Your task to perform on an android device: Open Maps and search for coffee Image 0: 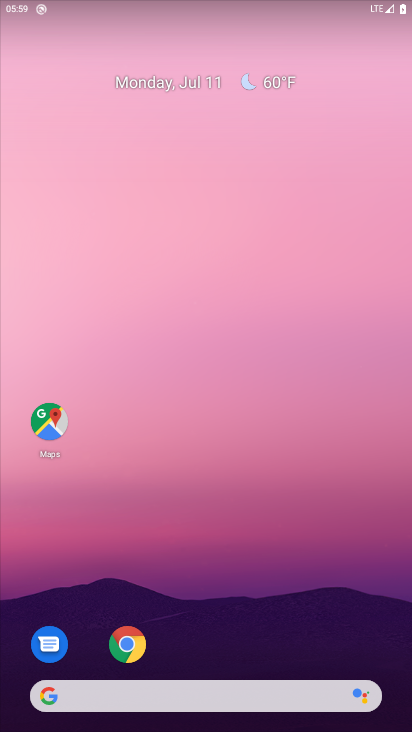
Step 0: click (203, 669)
Your task to perform on an android device: Open Maps and search for coffee Image 1: 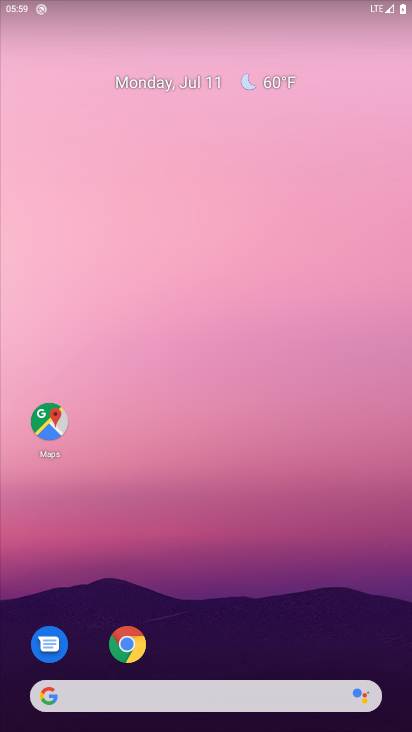
Step 1: drag from (210, 599) to (242, 274)
Your task to perform on an android device: Open Maps and search for coffee Image 2: 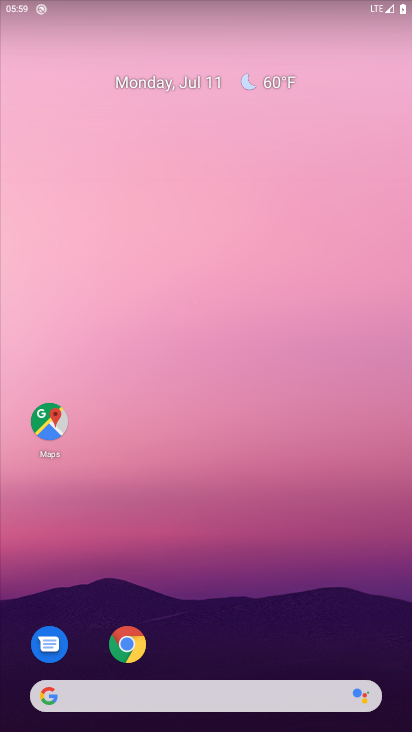
Step 2: click (48, 420)
Your task to perform on an android device: Open Maps and search for coffee Image 3: 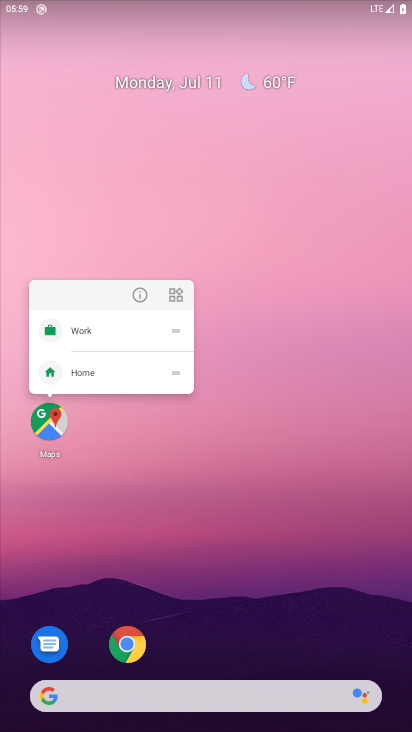
Step 3: click (48, 420)
Your task to perform on an android device: Open Maps and search for coffee Image 4: 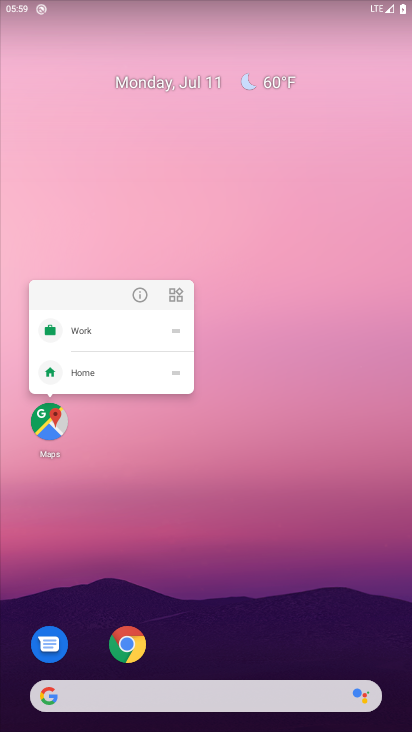
Step 4: click (48, 420)
Your task to perform on an android device: Open Maps and search for coffee Image 5: 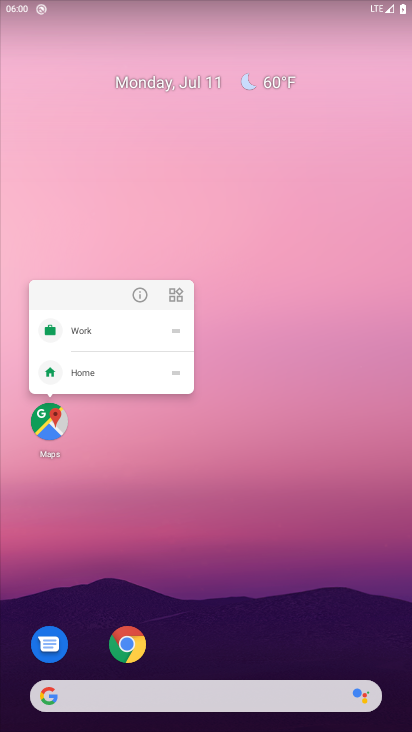
Step 5: click (55, 427)
Your task to perform on an android device: Open Maps and search for coffee Image 6: 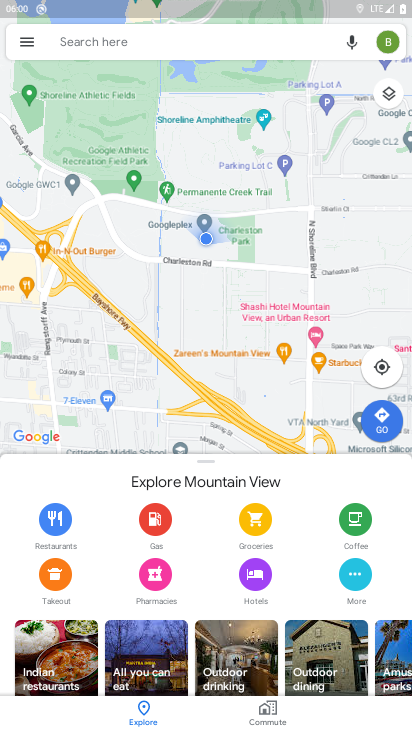
Step 6: click (163, 39)
Your task to perform on an android device: Open Maps and search for coffee Image 7: 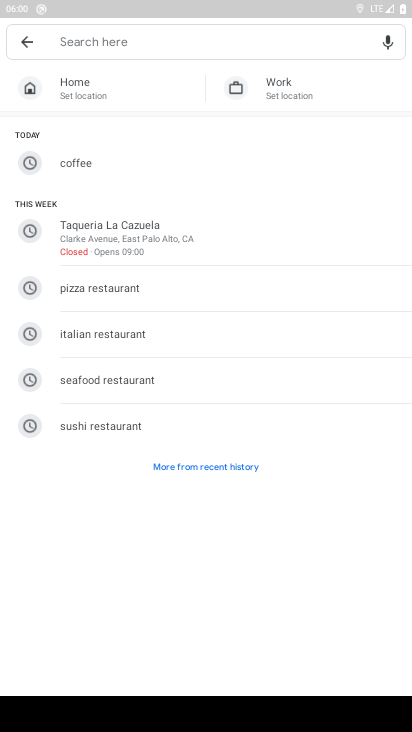
Step 7: click (82, 164)
Your task to perform on an android device: Open Maps and search for coffee Image 8: 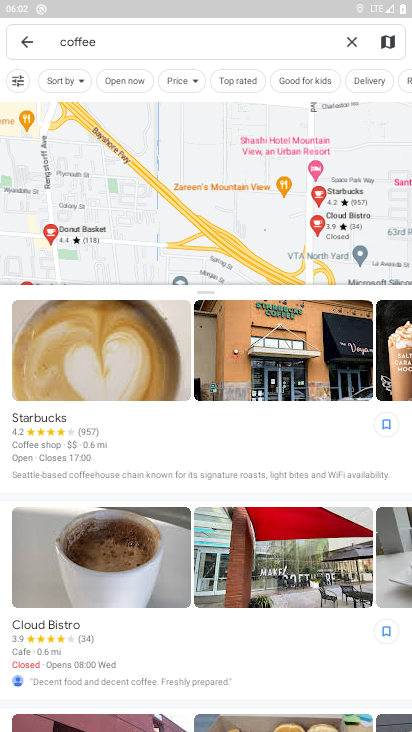
Step 8: task complete